Your task to perform on an android device: Turn on the flashlight Image 0: 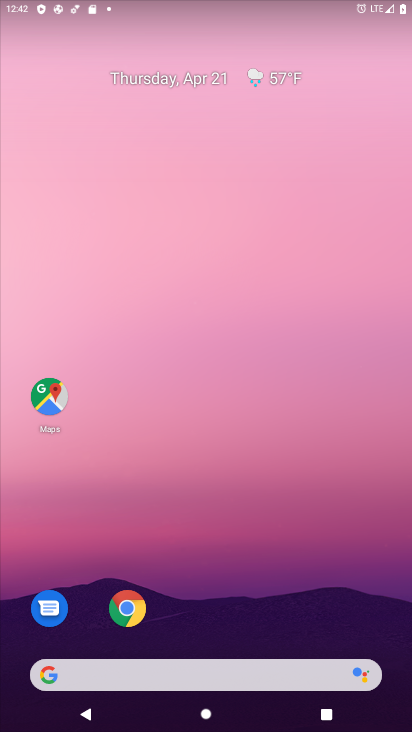
Step 0: drag from (229, 599) to (232, 110)
Your task to perform on an android device: Turn on the flashlight Image 1: 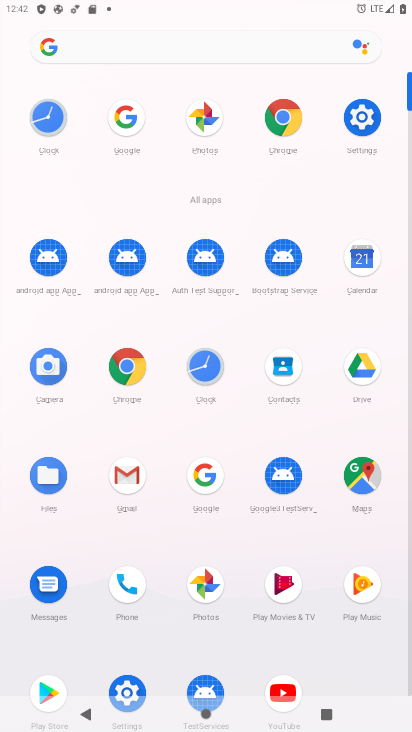
Step 1: click (352, 123)
Your task to perform on an android device: Turn on the flashlight Image 2: 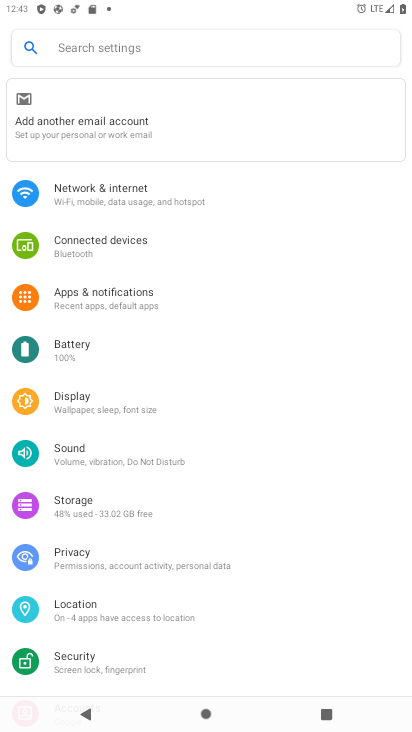
Step 2: click (109, 302)
Your task to perform on an android device: Turn on the flashlight Image 3: 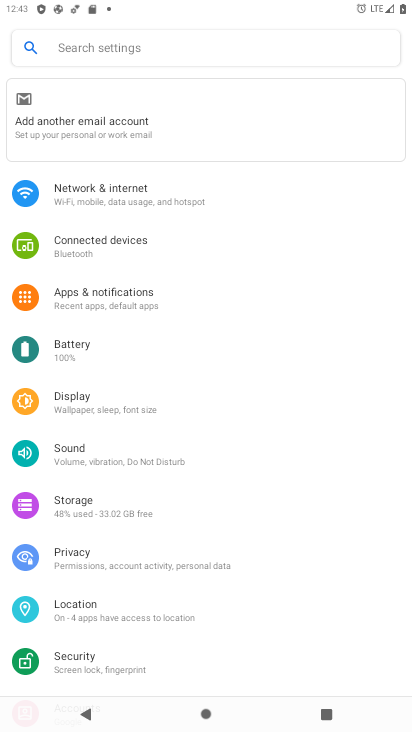
Step 3: task complete